Your task to perform on an android device: toggle improve location accuracy Image 0: 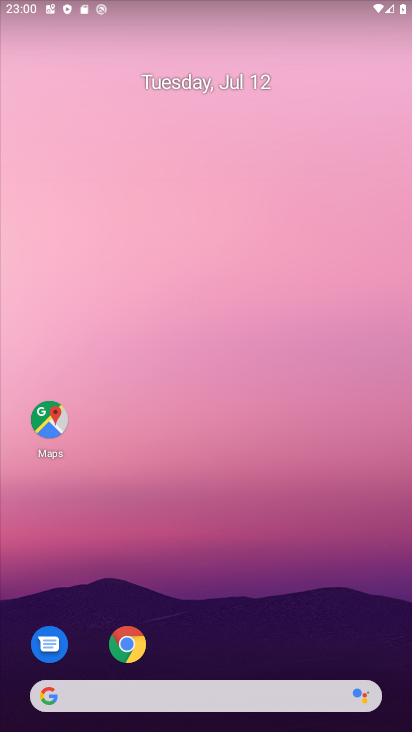
Step 0: click (47, 418)
Your task to perform on an android device: toggle improve location accuracy Image 1: 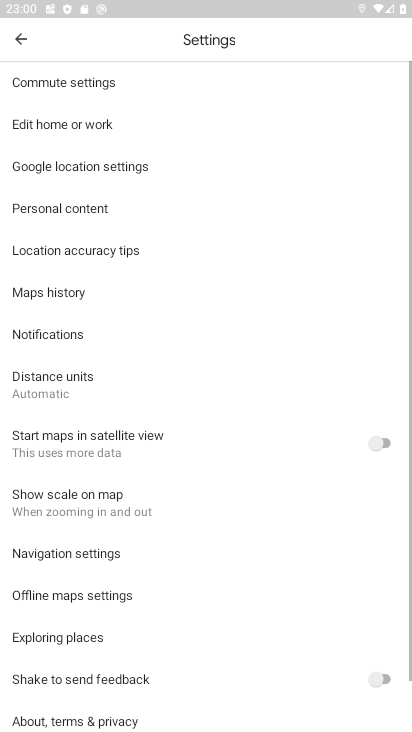
Step 1: click (132, 154)
Your task to perform on an android device: toggle improve location accuracy Image 2: 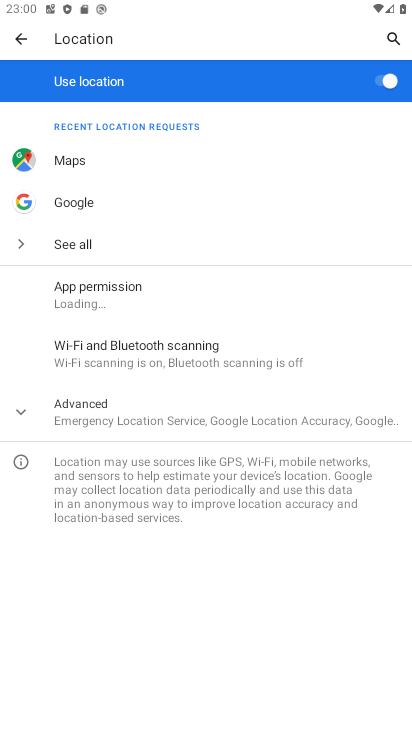
Step 2: click (191, 410)
Your task to perform on an android device: toggle improve location accuracy Image 3: 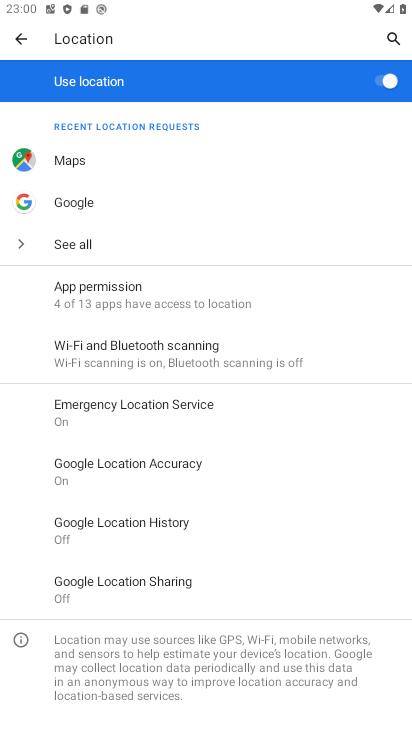
Step 3: click (157, 472)
Your task to perform on an android device: toggle improve location accuracy Image 4: 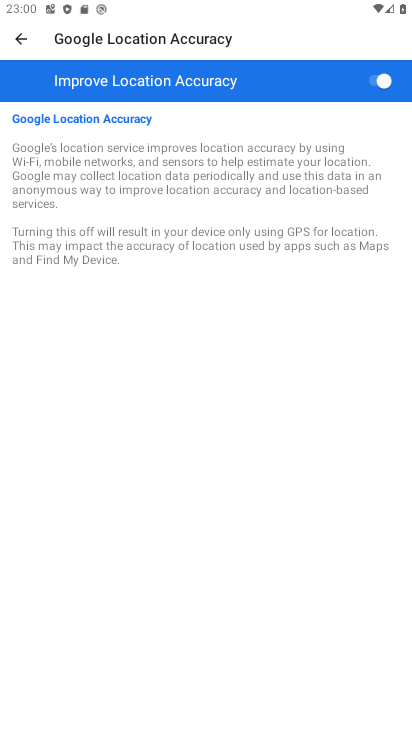
Step 4: click (391, 79)
Your task to perform on an android device: toggle improve location accuracy Image 5: 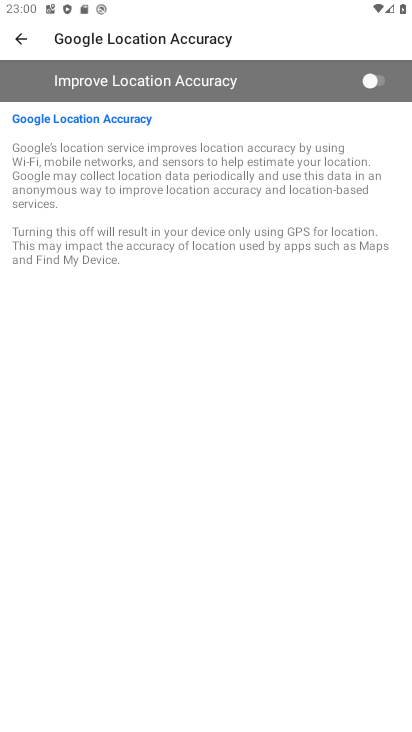
Step 5: task complete